Your task to perform on an android device: find snoozed emails in the gmail app Image 0: 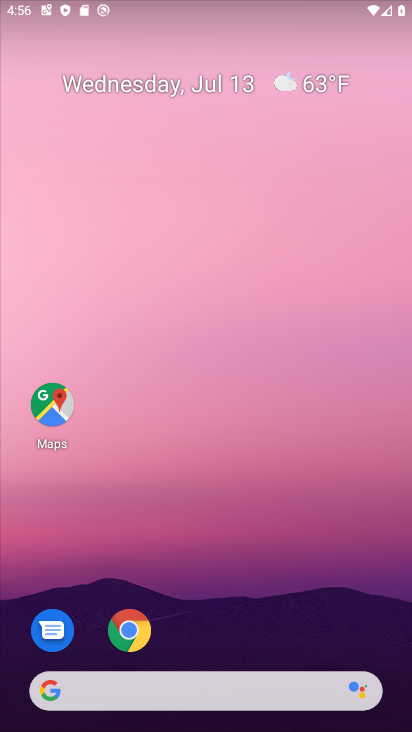
Step 0: press home button
Your task to perform on an android device: find snoozed emails in the gmail app Image 1: 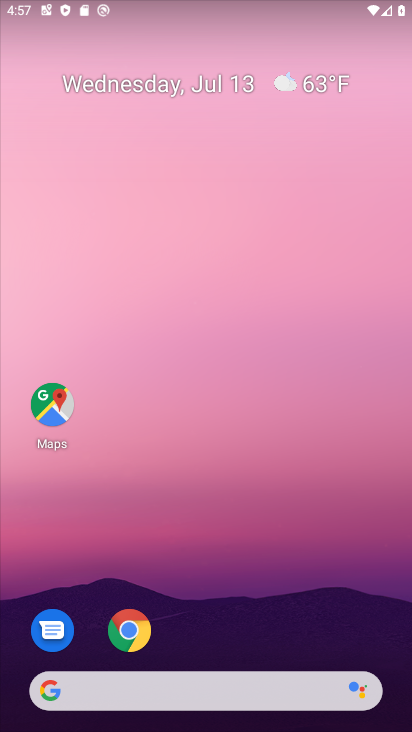
Step 1: drag from (229, 626) to (265, 124)
Your task to perform on an android device: find snoozed emails in the gmail app Image 2: 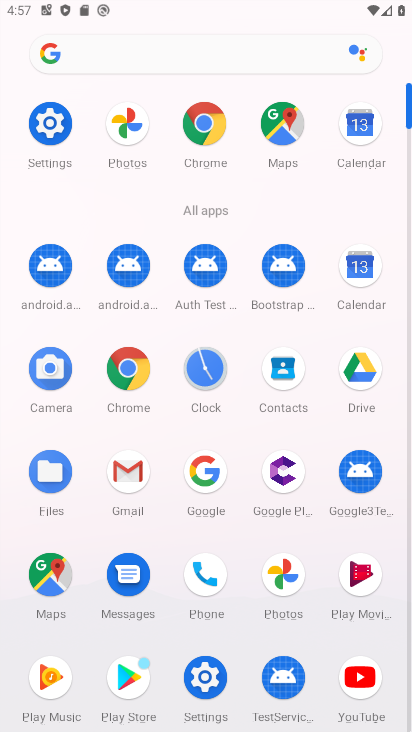
Step 2: click (125, 472)
Your task to perform on an android device: find snoozed emails in the gmail app Image 3: 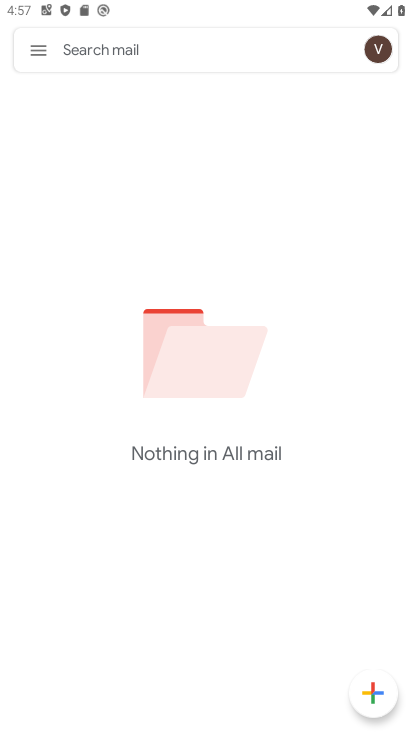
Step 3: click (41, 49)
Your task to perform on an android device: find snoozed emails in the gmail app Image 4: 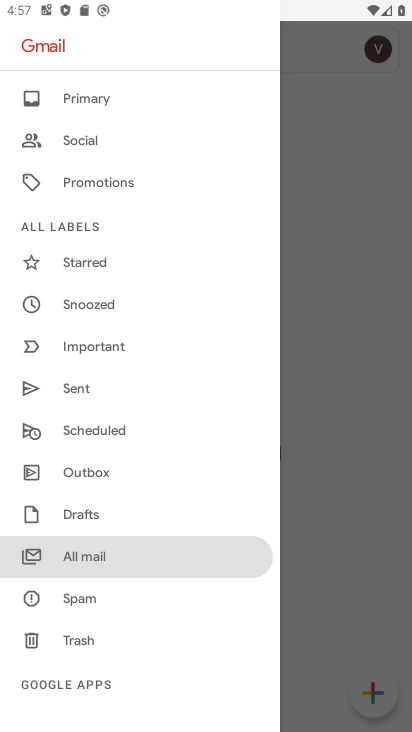
Step 4: click (96, 304)
Your task to perform on an android device: find snoozed emails in the gmail app Image 5: 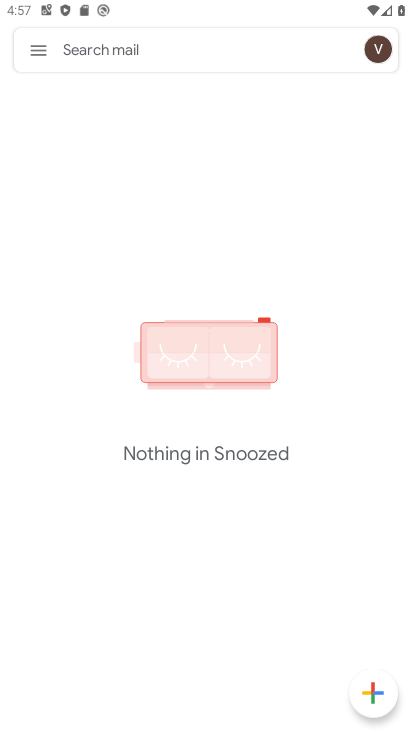
Step 5: task complete